Your task to perform on an android device: Clear the shopping cart on ebay. Add "macbook" to the cart on ebay, then select checkout. Image 0: 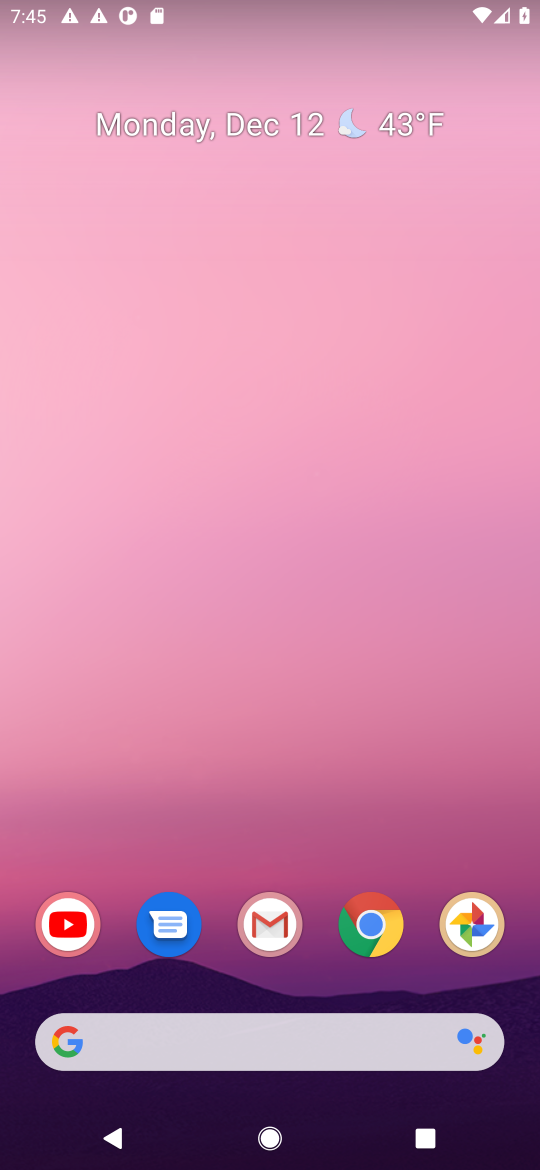
Step 0: drag from (270, 979) to (273, 116)
Your task to perform on an android device: Clear the shopping cart on ebay. Add "macbook" to the cart on ebay, then select checkout. Image 1: 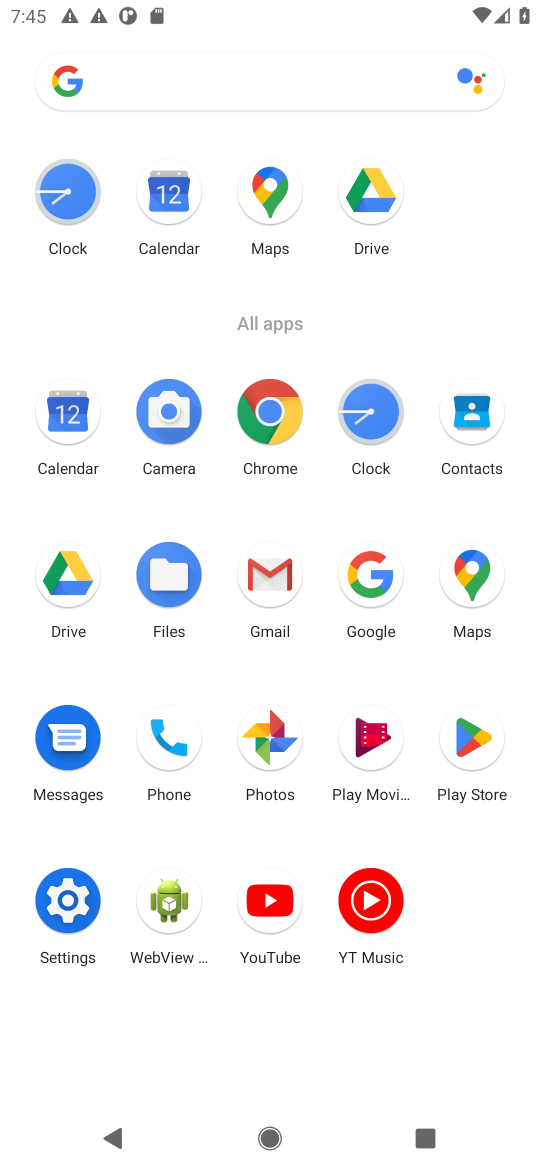
Step 1: click (372, 594)
Your task to perform on an android device: Clear the shopping cart on ebay. Add "macbook" to the cart on ebay, then select checkout. Image 2: 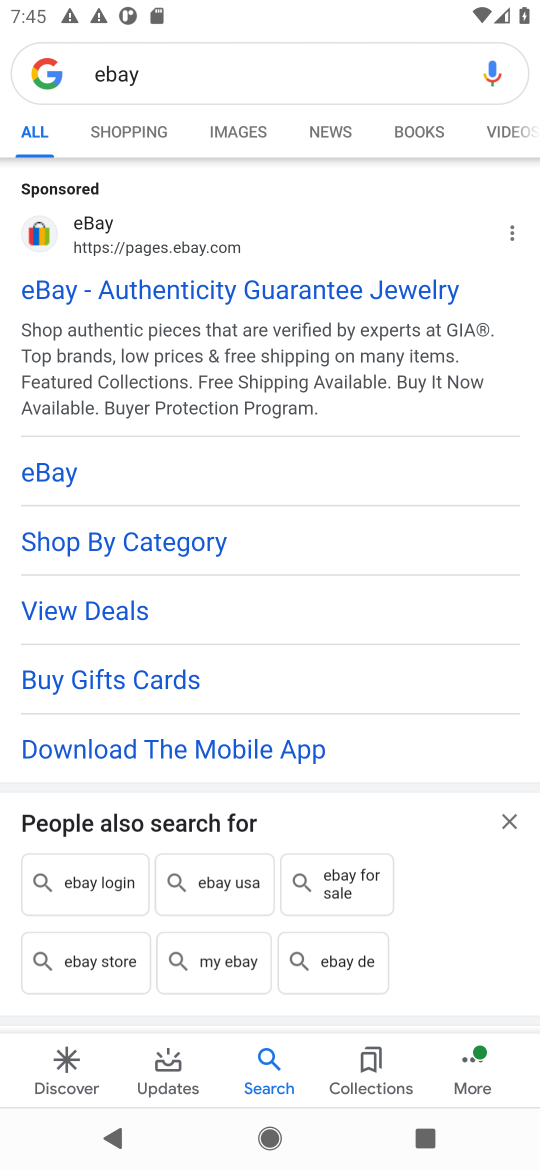
Step 2: click (140, 281)
Your task to perform on an android device: Clear the shopping cart on ebay. Add "macbook" to the cart on ebay, then select checkout. Image 3: 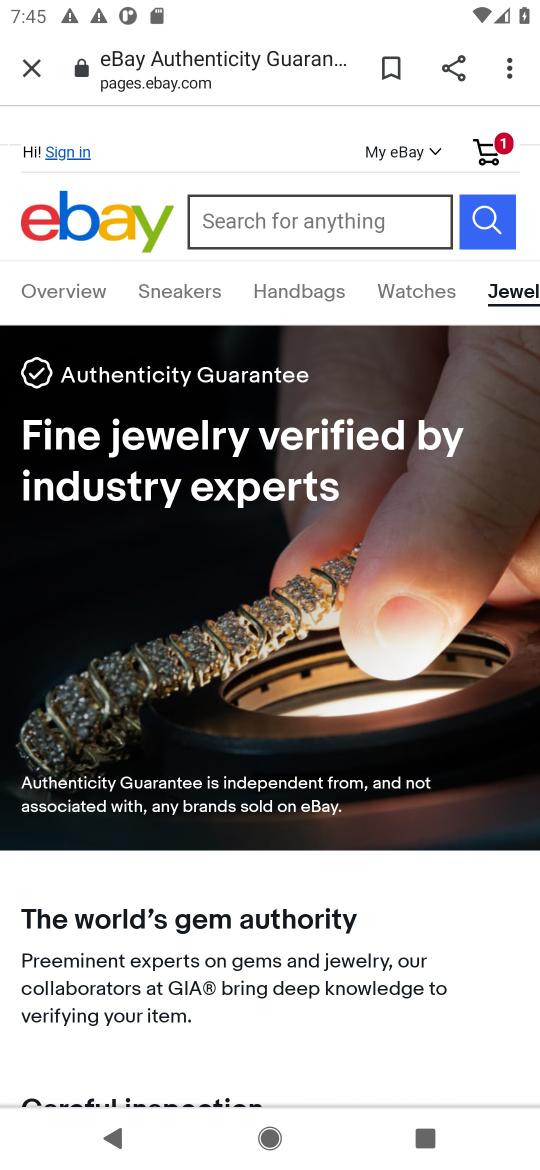
Step 3: click (493, 154)
Your task to perform on an android device: Clear the shopping cart on ebay. Add "macbook" to the cart on ebay, then select checkout. Image 4: 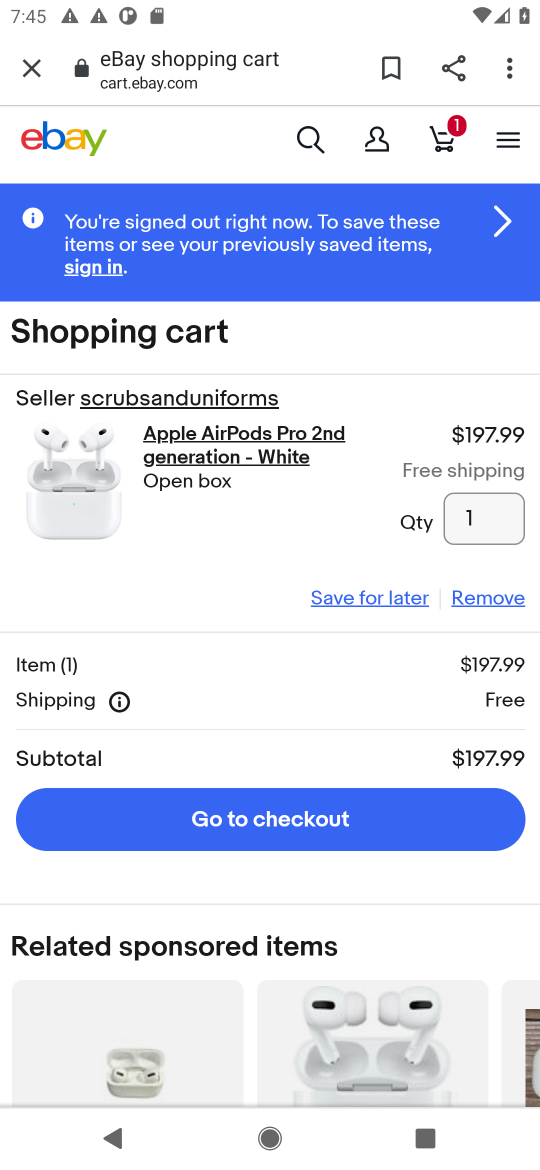
Step 4: click (475, 601)
Your task to perform on an android device: Clear the shopping cart on ebay. Add "macbook" to the cart on ebay, then select checkout. Image 5: 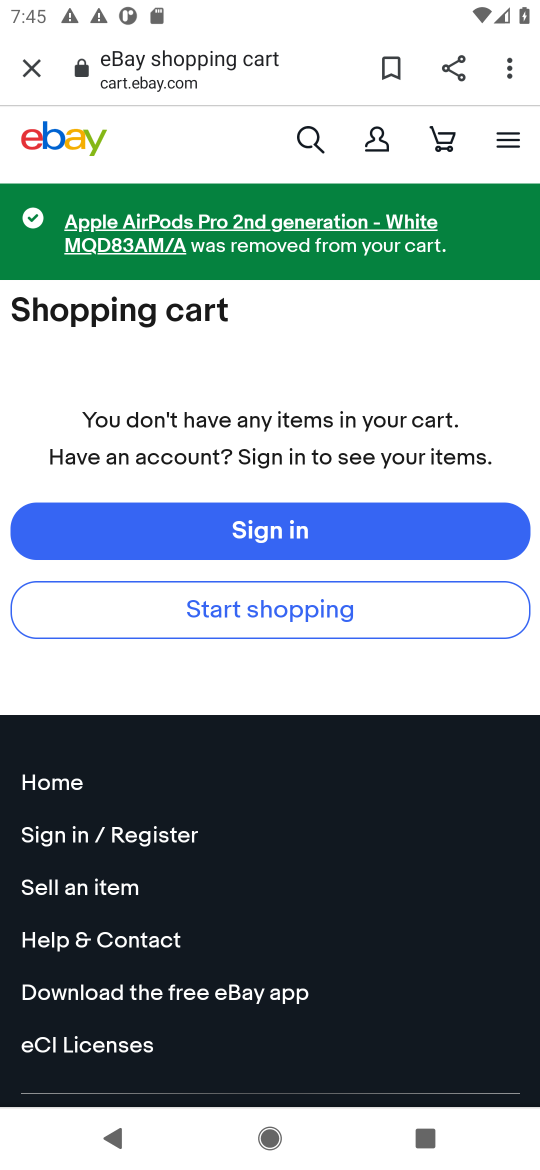
Step 5: click (302, 143)
Your task to perform on an android device: Clear the shopping cart on ebay. Add "macbook" to the cart on ebay, then select checkout. Image 6: 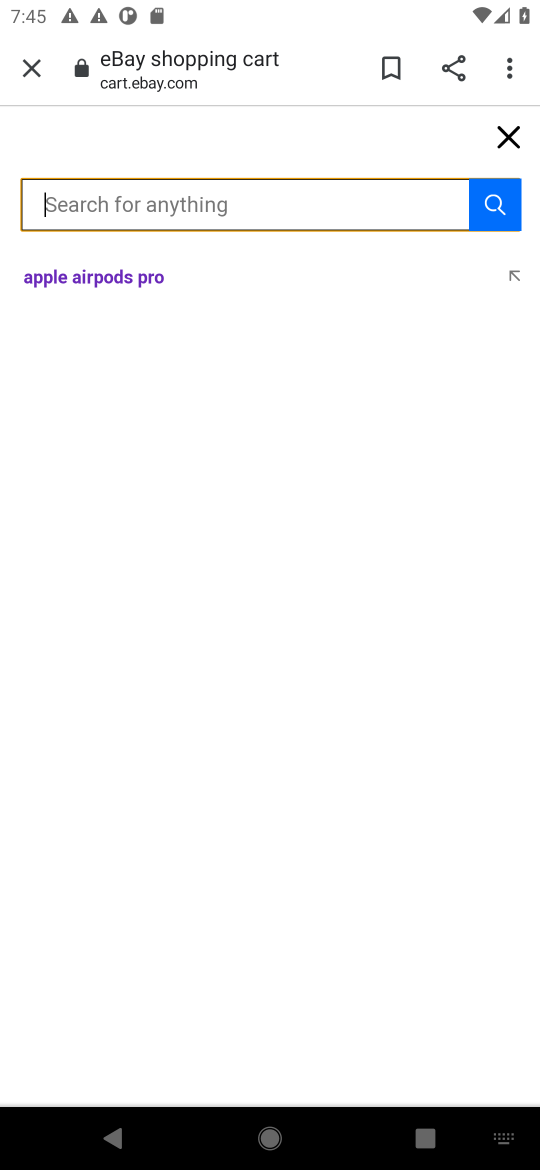
Step 6: type "macbook"
Your task to perform on an android device: Clear the shopping cart on ebay. Add "macbook" to the cart on ebay, then select checkout. Image 7: 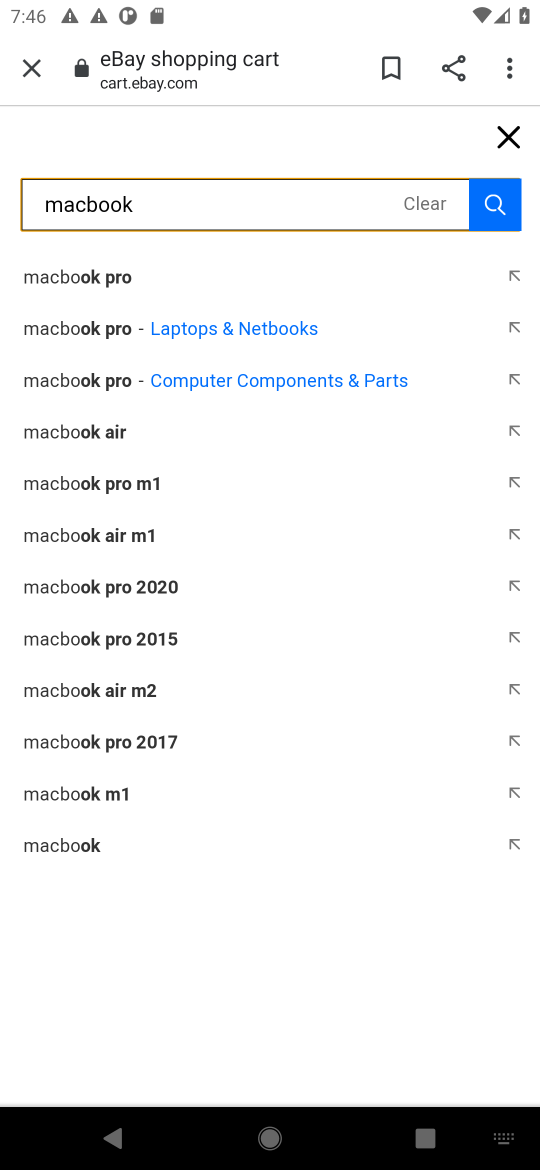
Step 7: click (75, 276)
Your task to perform on an android device: Clear the shopping cart on ebay. Add "macbook" to the cart on ebay, then select checkout. Image 8: 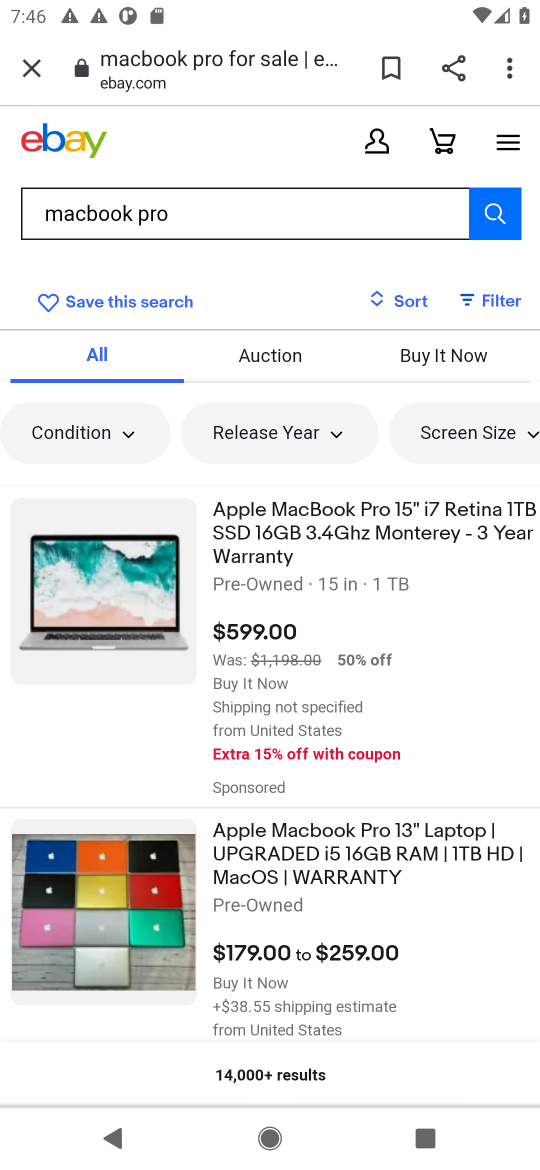
Step 8: click (233, 568)
Your task to perform on an android device: Clear the shopping cart on ebay. Add "macbook" to the cart on ebay, then select checkout. Image 9: 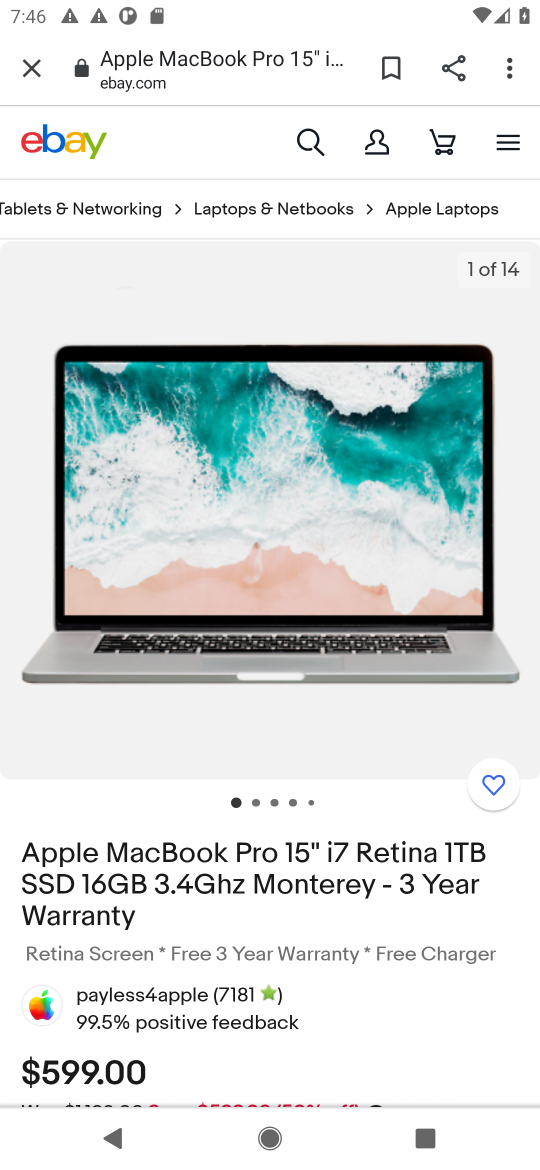
Step 9: drag from (222, 822) to (265, 346)
Your task to perform on an android device: Clear the shopping cart on ebay. Add "macbook" to the cart on ebay, then select checkout. Image 10: 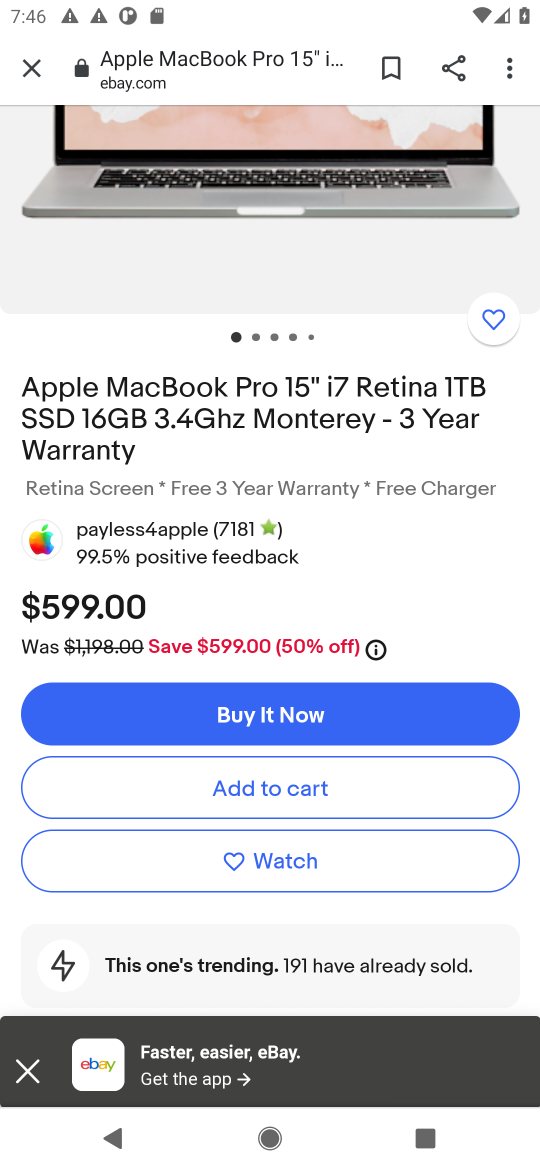
Step 10: click (266, 788)
Your task to perform on an android device: Clear the shopping cart on ebay. Add "macbook" to the cart on ebay, then select checkout. Image 11: 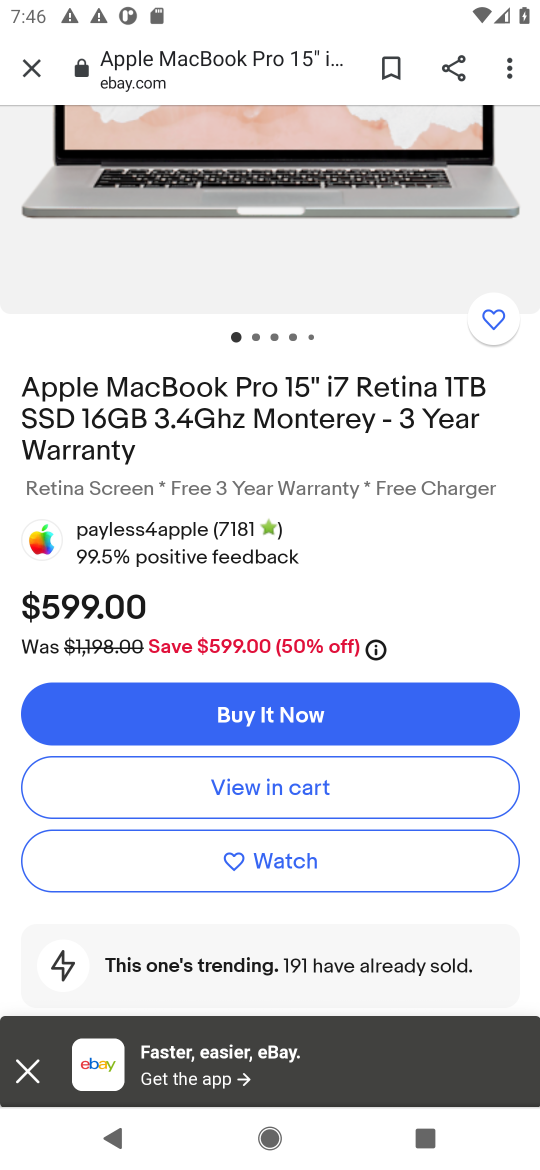
Step 11: click (266, 788)
Your task to perform on an android device: Clear the shopping cart on ebay. Add "macbook" to the cart on ebay, then select checkout. Image 12: 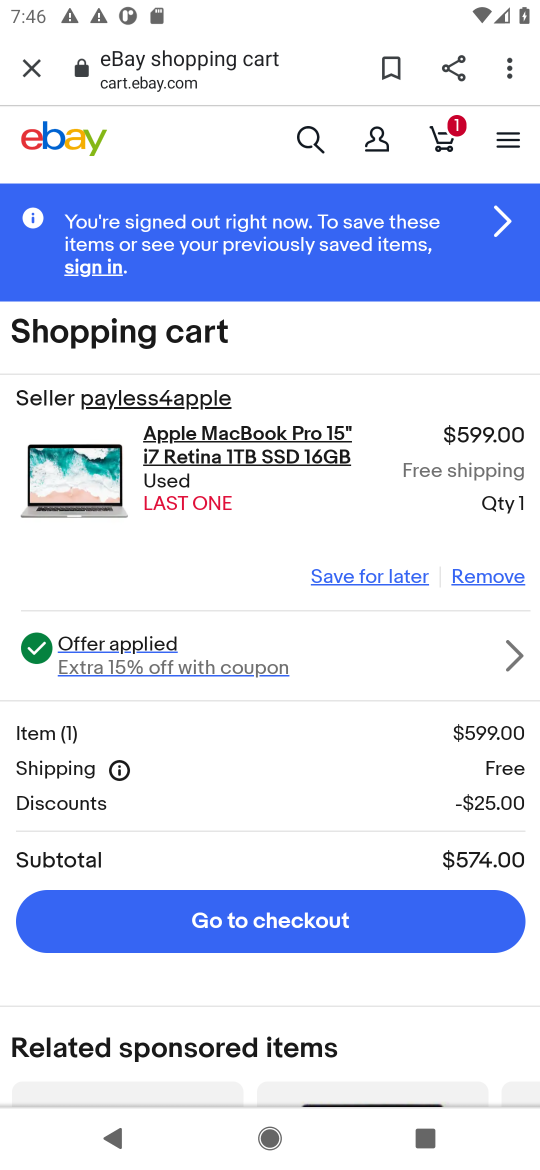
Step 12: click (270, 931)
Your task to perform on an android device: Clear the shopping cart on ebay. Add "macbook" to the cart on ebay, then select checkout. Image 13: 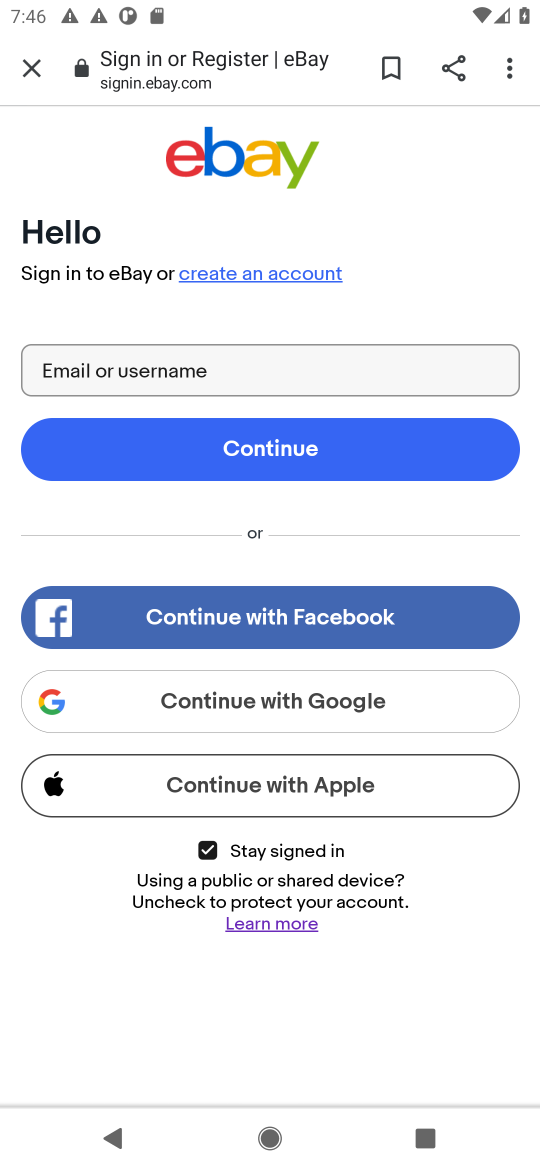
Step 13: task complete